Your task to perform on an android device: turn on data saver in the chrome app Image 0: 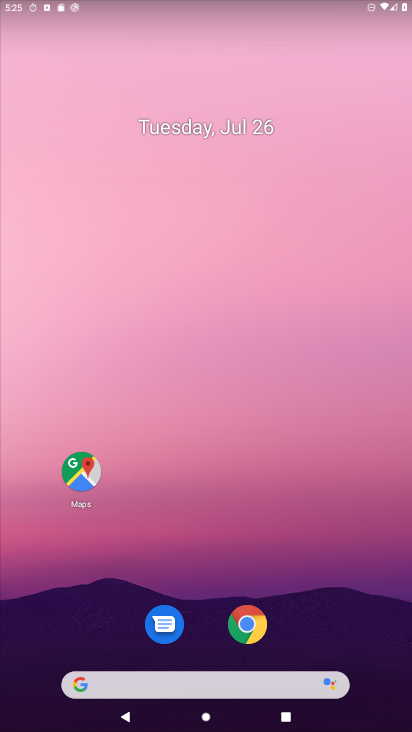
Step 0: drag from (106, 636) to (145, 74)
Your task to perform on an android device: turn on data saver in the chrome app Image 1: 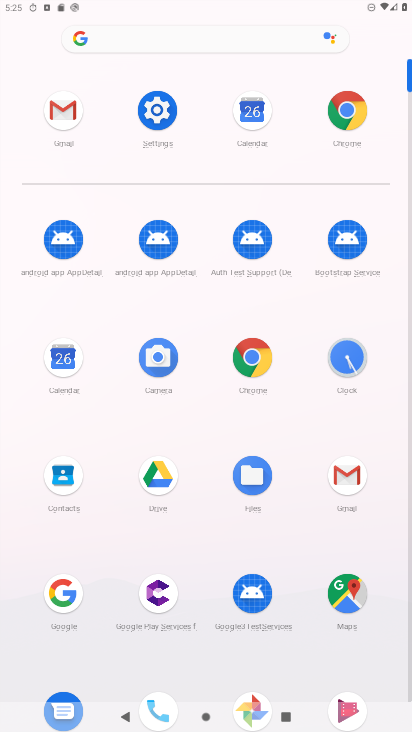
Step 1: click (250, 351)
Your task to perform on an android device: turn on data saver in the chrome app Image 2: 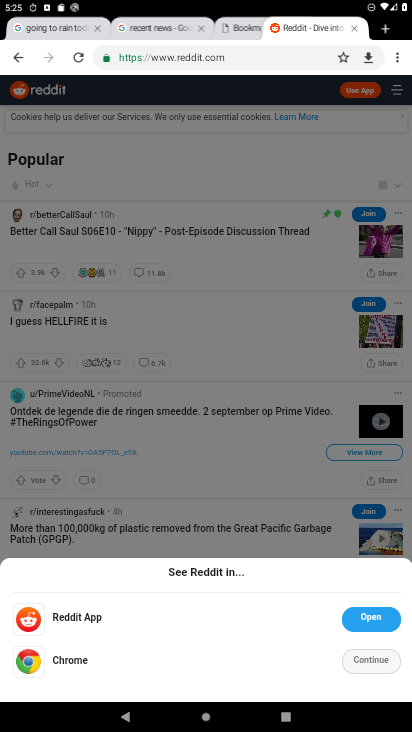
Step 2: click (401, 57)
Your task to perform on an android device: turn on data saver in the chrome app Image 3: 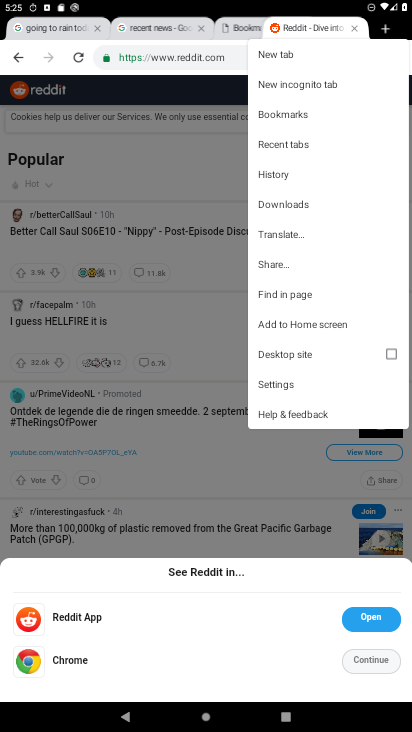
Step 3: click (299, 382)
Your task to perform on an android device: turn on data saver in the chrome app Image 4: 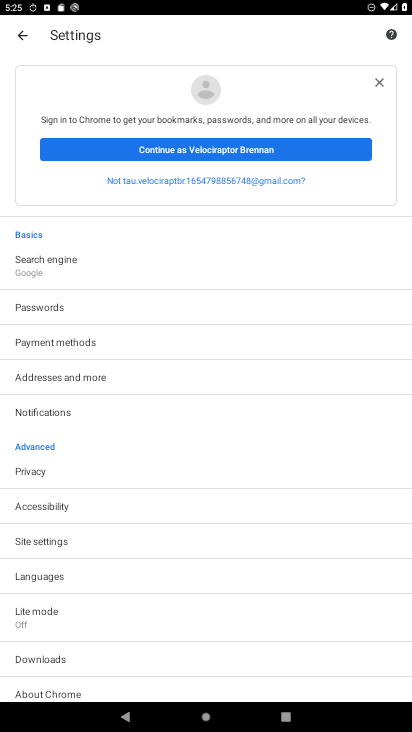
Step 4: click (68, 610)
Your task to perform on an android device: turn on data saver in the chrome app Image 5: 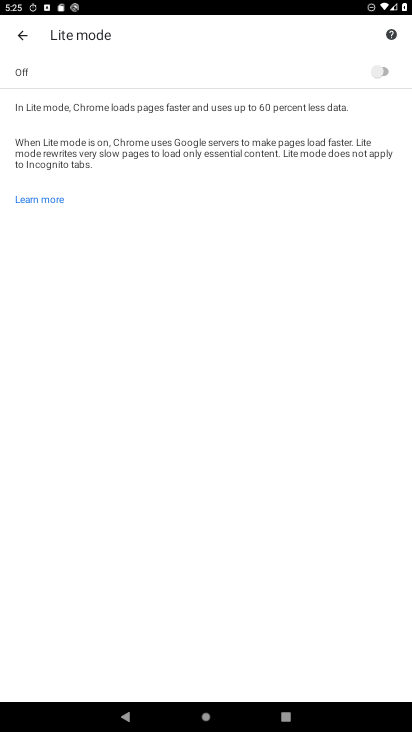
Step 5: click (381, 73)
Your task to perform on an android device: turn on data saver in the chrome app Image 6: 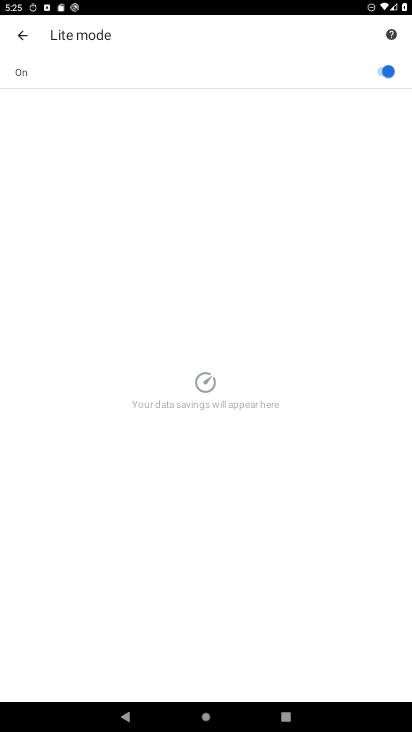
Step 6: task complete